Your task to perform on an android device: toggle show notifications on the lock screen Image 0: 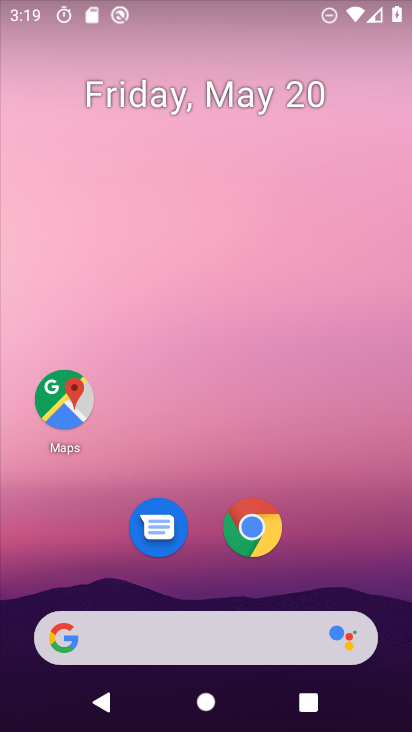
Step 0: drag from (247, 573) to (218, 7)
Your task to perform on an android device: toggle show notifications on the lock screen Image 1: 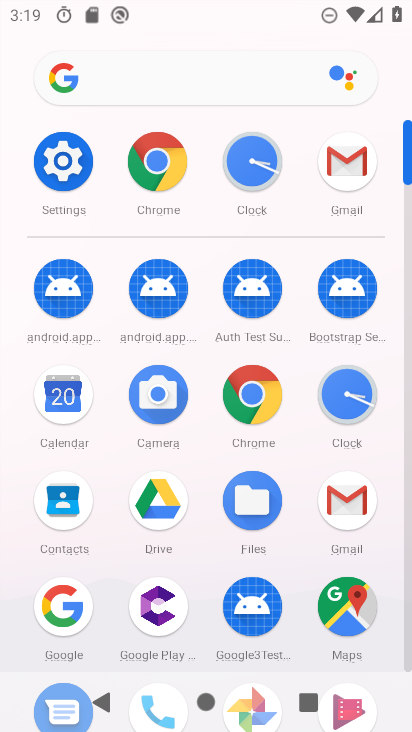
Step 1: click (62, 167)
Your task to perform on an android device: toggle show notifications on the lock screen Image 2: 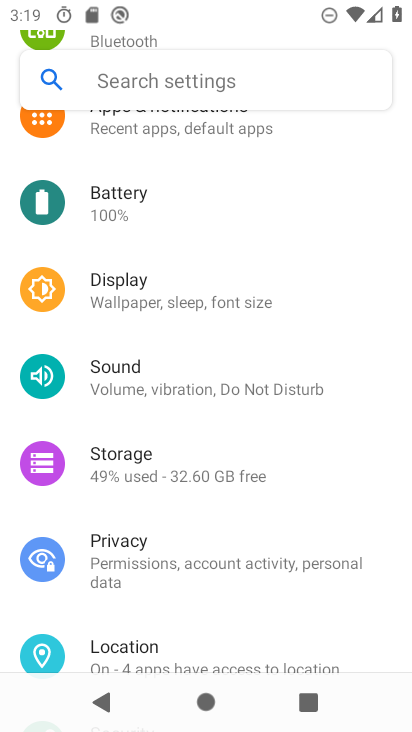
Step 2: drag from (198, 192) to (232, 730)
Your task to perform on an android device: toggle show notifications on the lock screen Image 3: 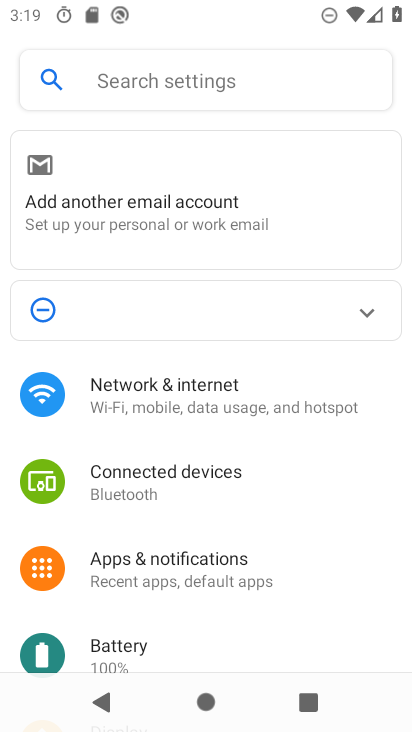
Step 3: click (203, 573)
Your task to perform on an android device: toggle show notifications on the lock screen Image 4: 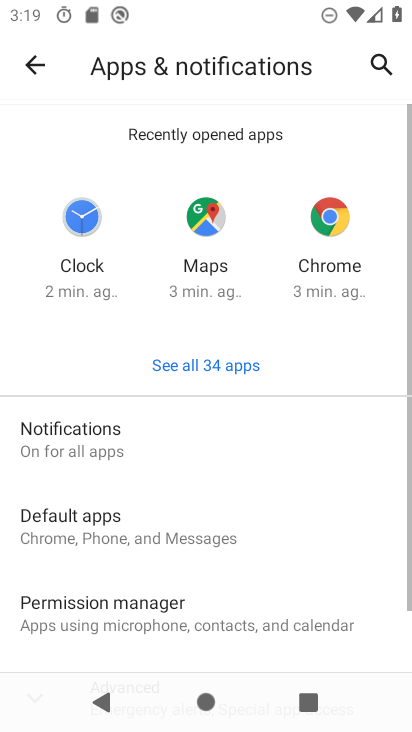
Step 4: drag from (163, 463) to (217, 71)
Your task to perform on an android device: toggle show notifications on the lock screen Image 5: 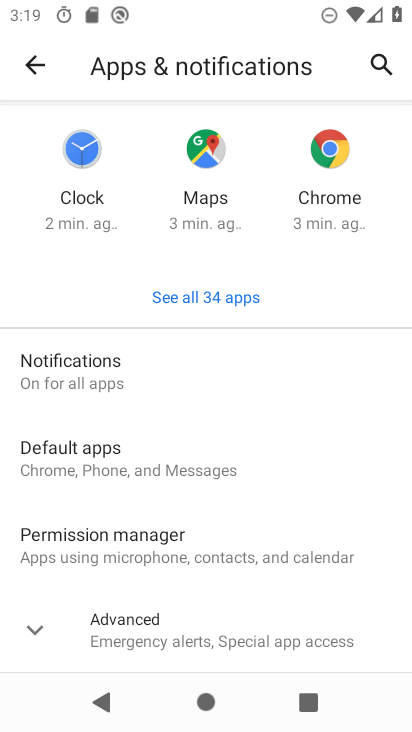
Step 5: click (144, 370)
Your task to perform on an android device: toggle show notifications on the lock screen Image 6: 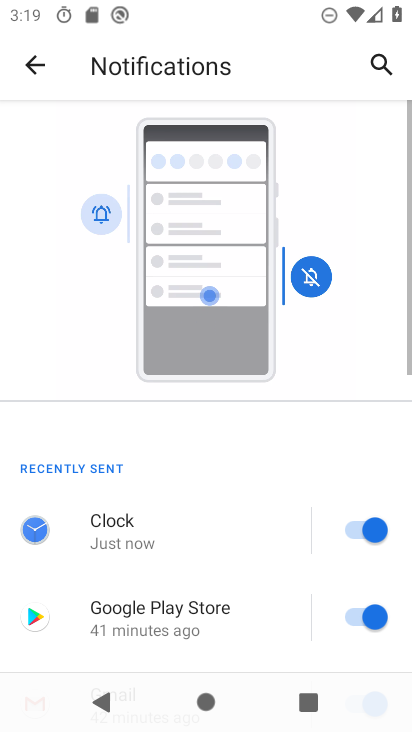
Step 6: drag from (149, 596) to (222, 36)
Your task to perform on an android device: toggle show notifications on the lock screen Image 7: 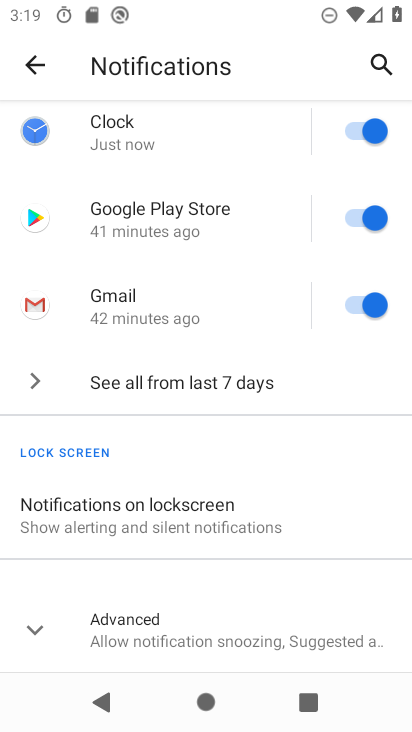
Step 7: click (119, 508)
Your task to perform on an android device: toggle show notifications on the lock screen Image 8: 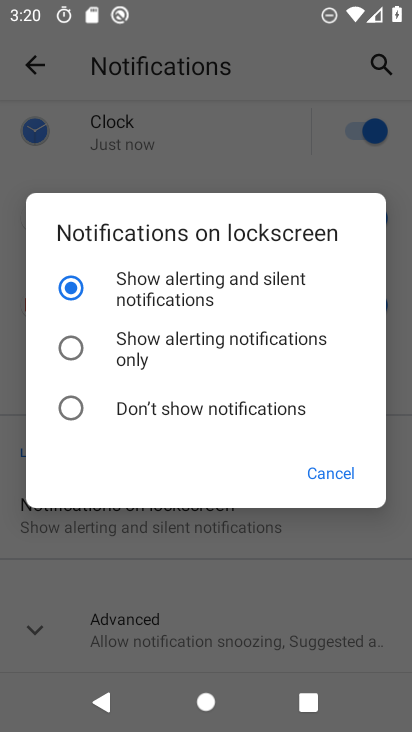
Step 8: click (71, 288)
Your task to perform on an android device: toggle show notifications on the lock screen Image 9: 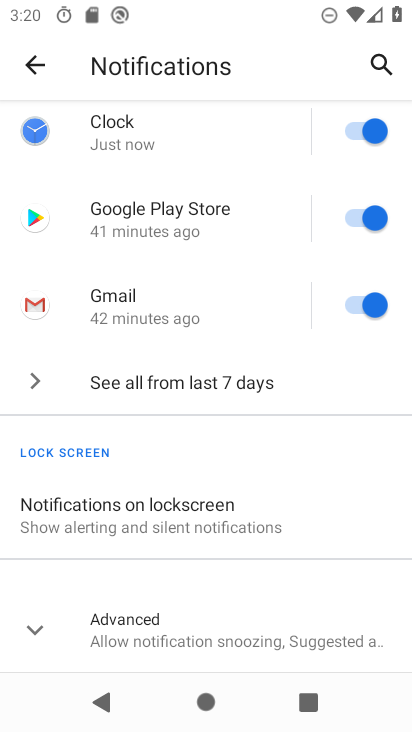
Step 9: task complete